Your task to perform on an android device: make emails show in primary in the gmail app Image 0: 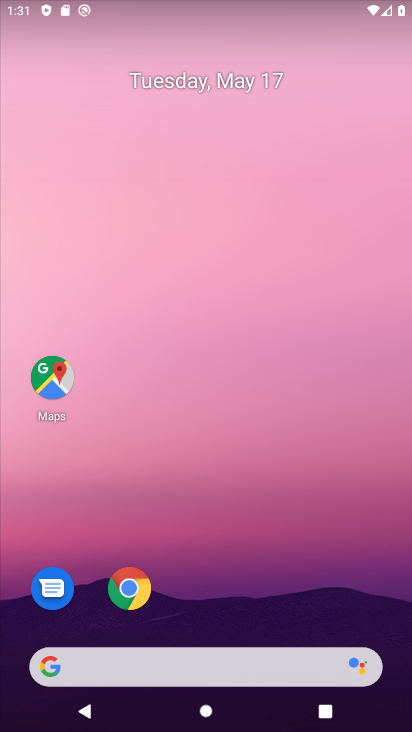
Step 0: drag from (194, 618) to (82, 74)
Your task to perform on an android device: make emails show in primary in the gmail app Image 1: 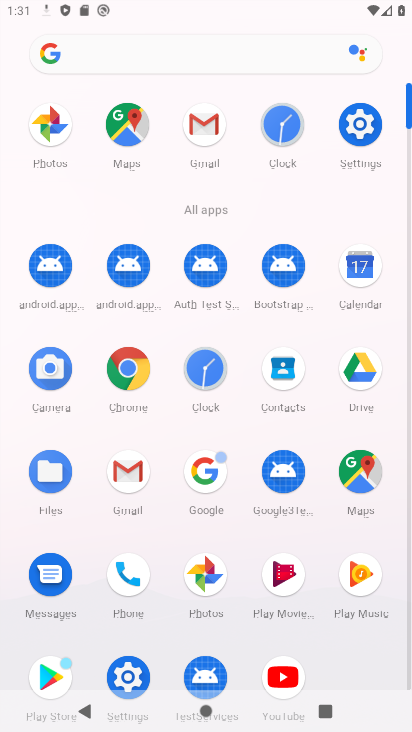
Step 1: click (206, 127)
Your task to perform on an android device: make emails show in primary in the gmail app Image 2: 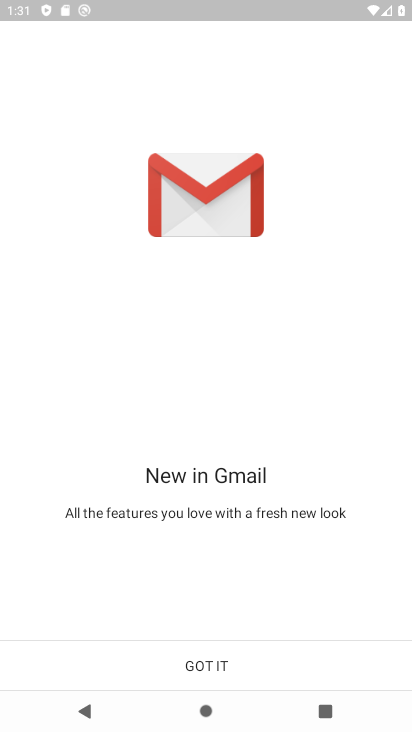
Step 2: click (203, 666)
Your task to perform on an android device: make emails show in primary in the gmail app Image 3: 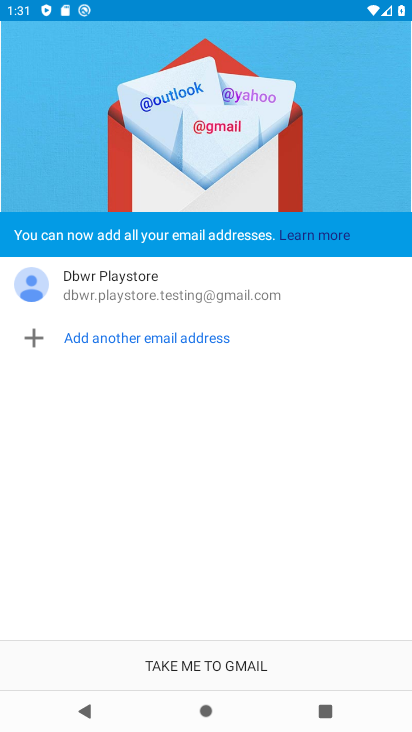
Step 3: click (204, 665)
Your task to perform on an android device: make emails show in primary in the gmail app Image 4: 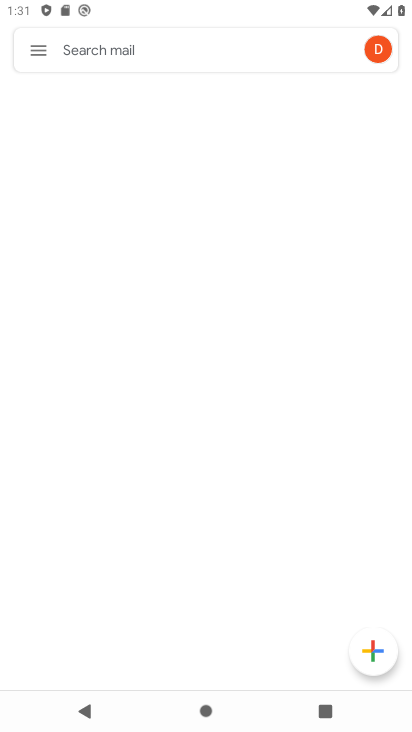
Step 4: click (44, 59)
Your task to perform on an android device: make emails show in primary in the gmail app Image 5: 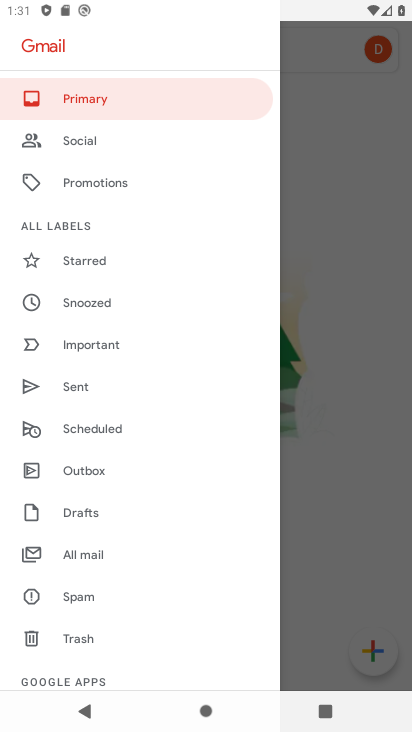
Step 5: task complete